Your task to perform on an android device: install app "Spotify: Music and Podcasts" Image 0: 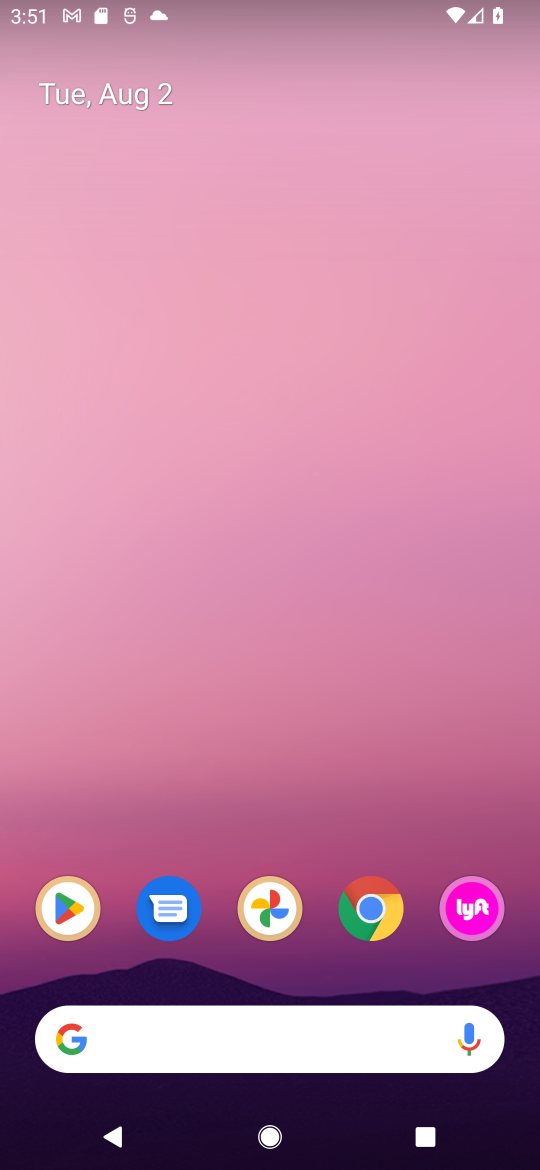
Step 0: press home button
Your task to perform on an android device: install app "Spotify: Music and Podcasts" Image 1: 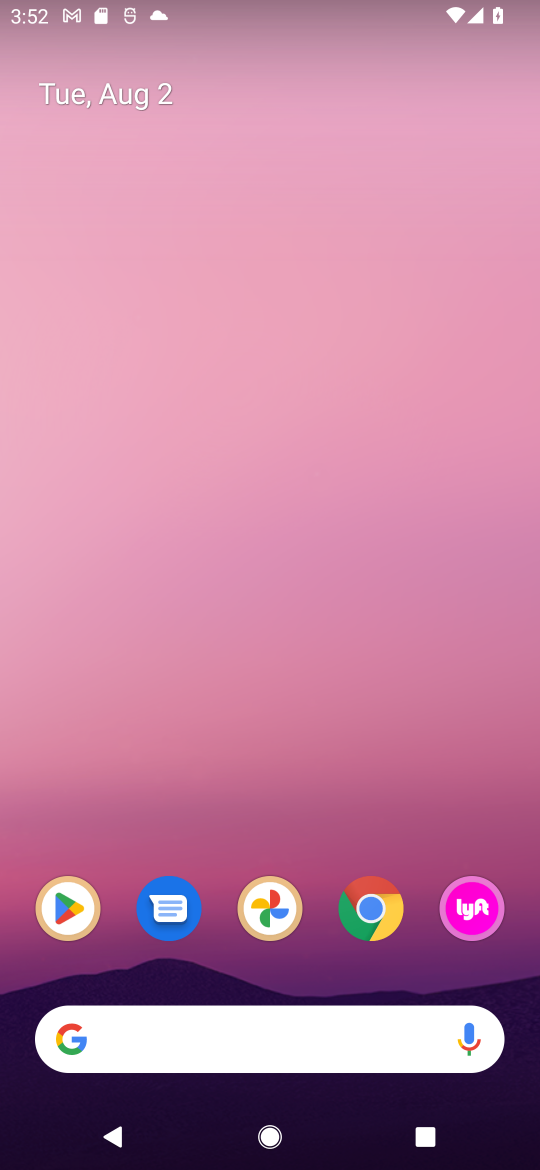
Step 1: click (60, 899)
Your task to perform on an android device: install app "Spotify: Music and Podcasts" Image 2: 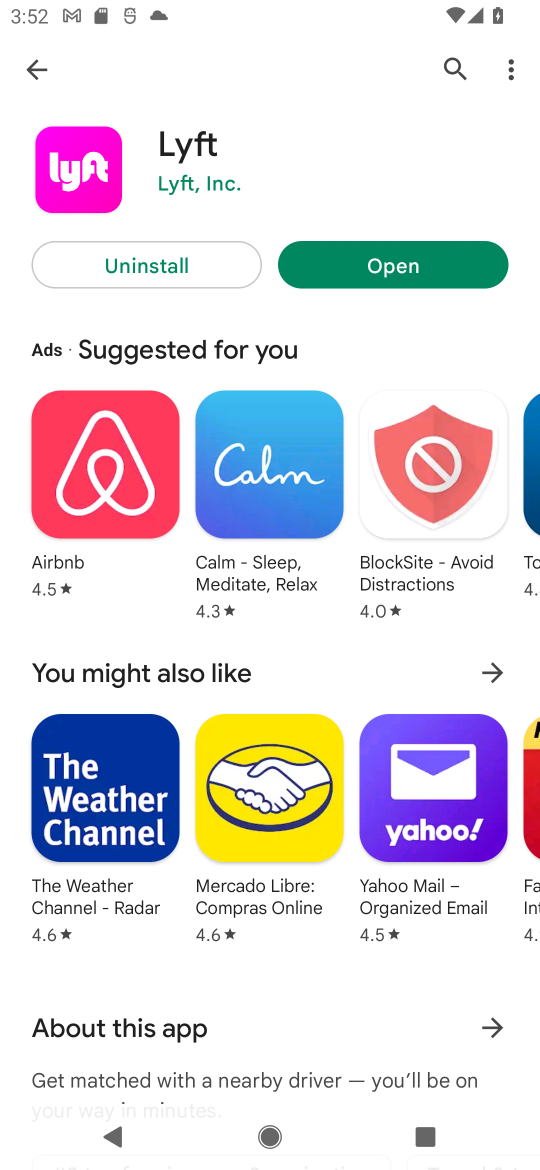
Step 2: click (446, 65)
Your task to perform on an android device: install app "Spotify: Music and Podcasts" Image 3: 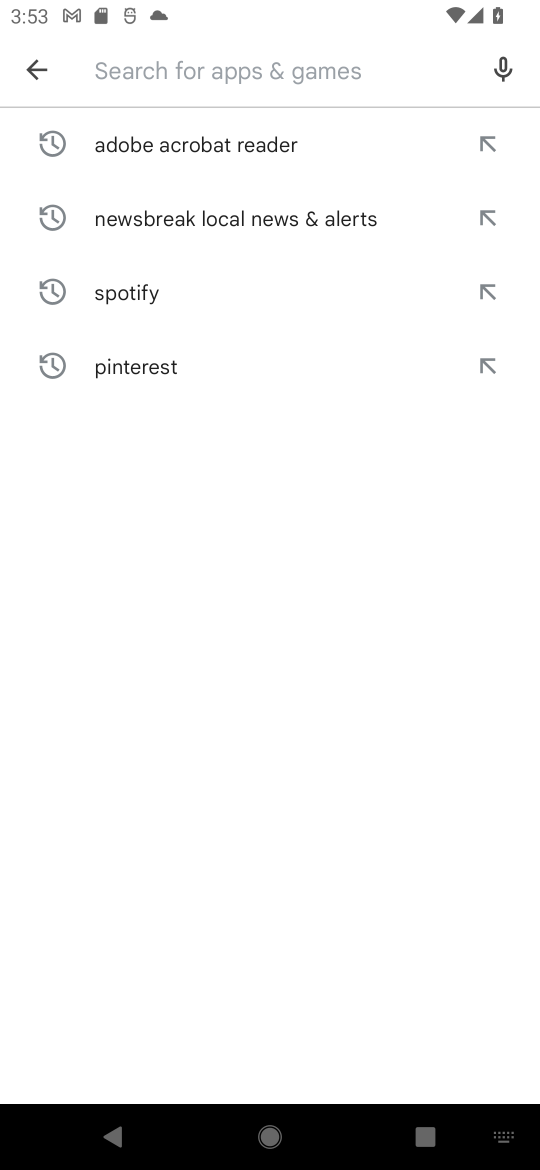
Step 3: type "Spotify: Music and Podcasts"
Your task to perform on an android device: install app "Spotify: Music and Podcasts" Image 4: 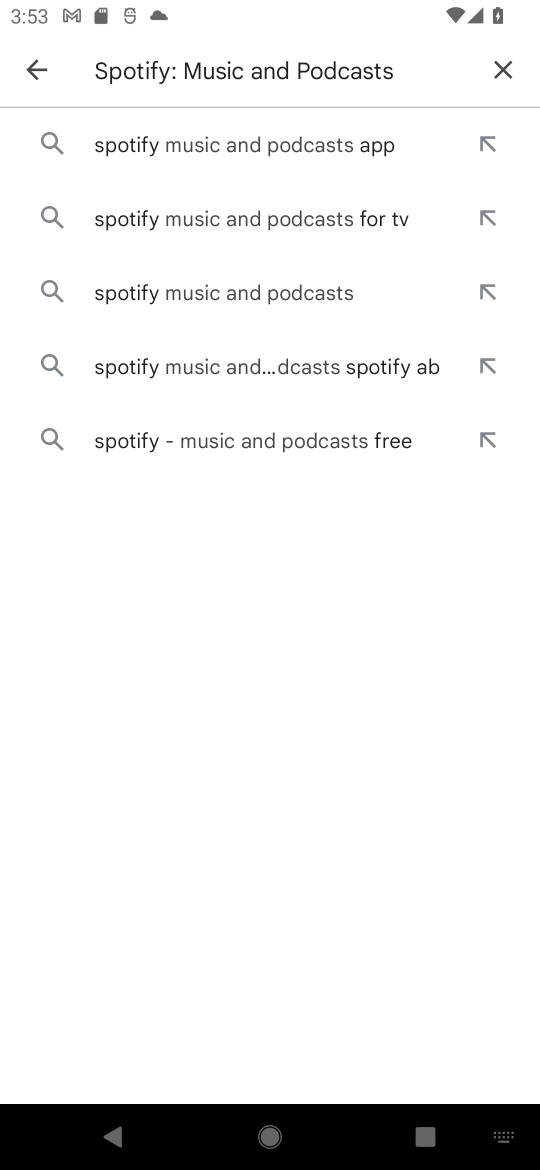
Step 4: click (245, 149)
Your task to perform on an android device: install app "Spotify: Music and Podcasts" Image 5: 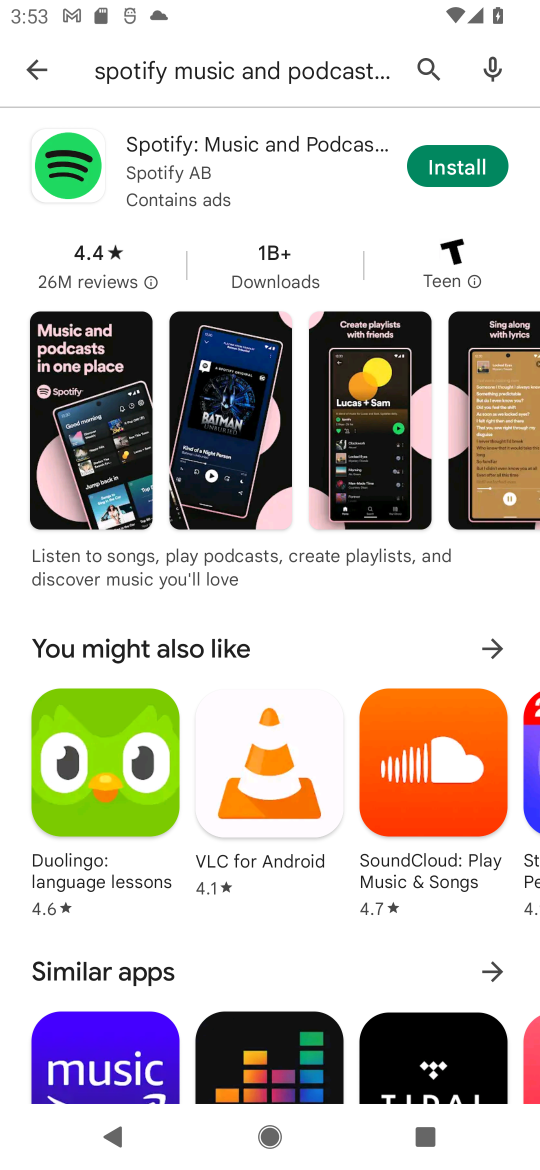
Step 5: click (469, 157)
Your task to perform on an android device: install app "Spotify: Music and Podcasts" Image 6: 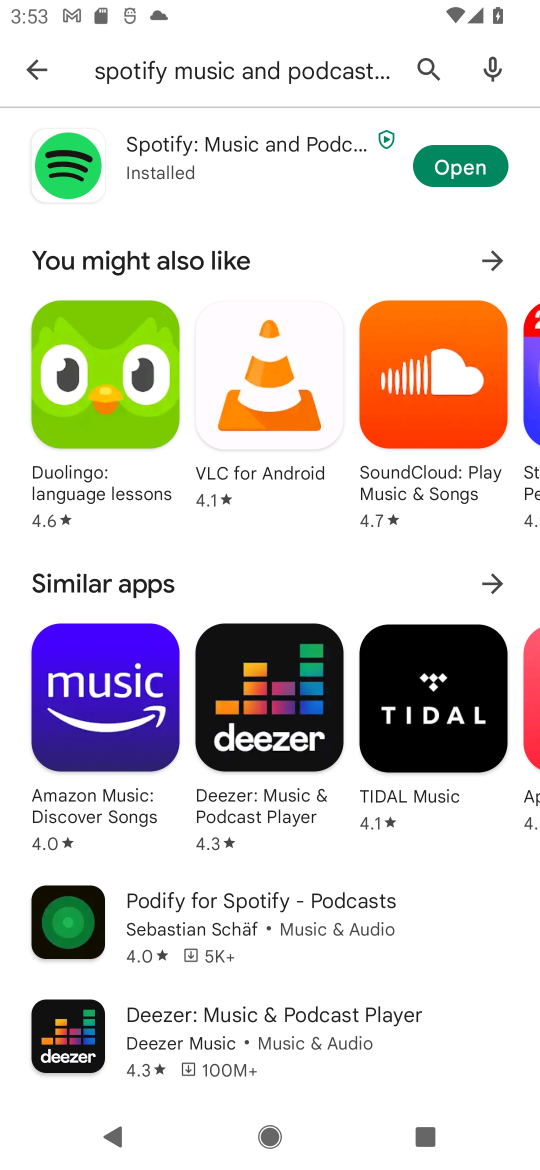
Step 6: click (454, 169)
Your task to perform on an android device: install app "Spotify: Music and Podcasts" Image 7: 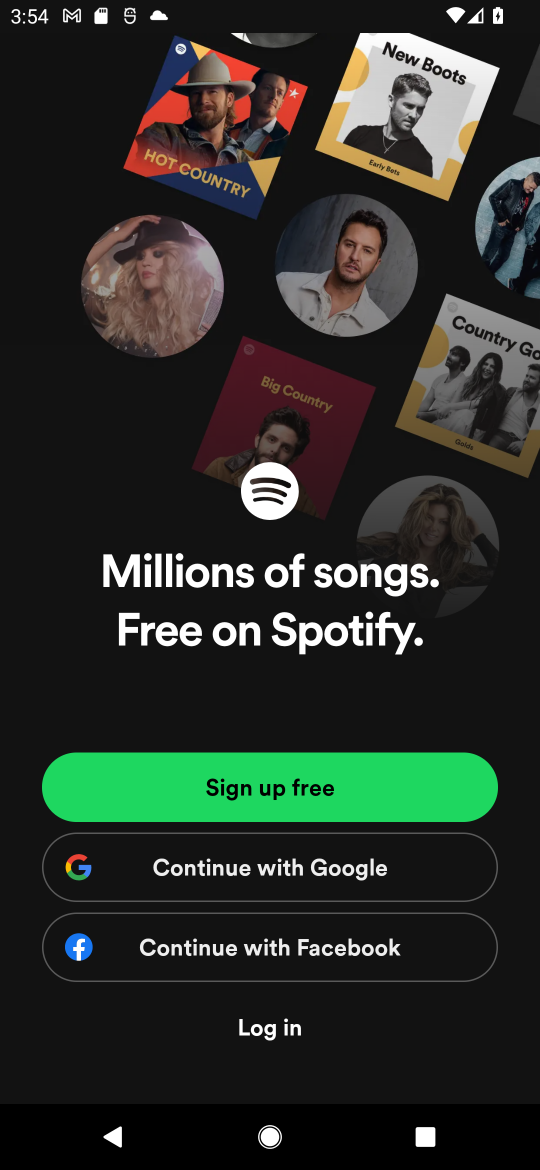
Step 7: click (275, 856)
Your task to perform on an android device: install app "Spotify: Music and Podcasts" Image 8: 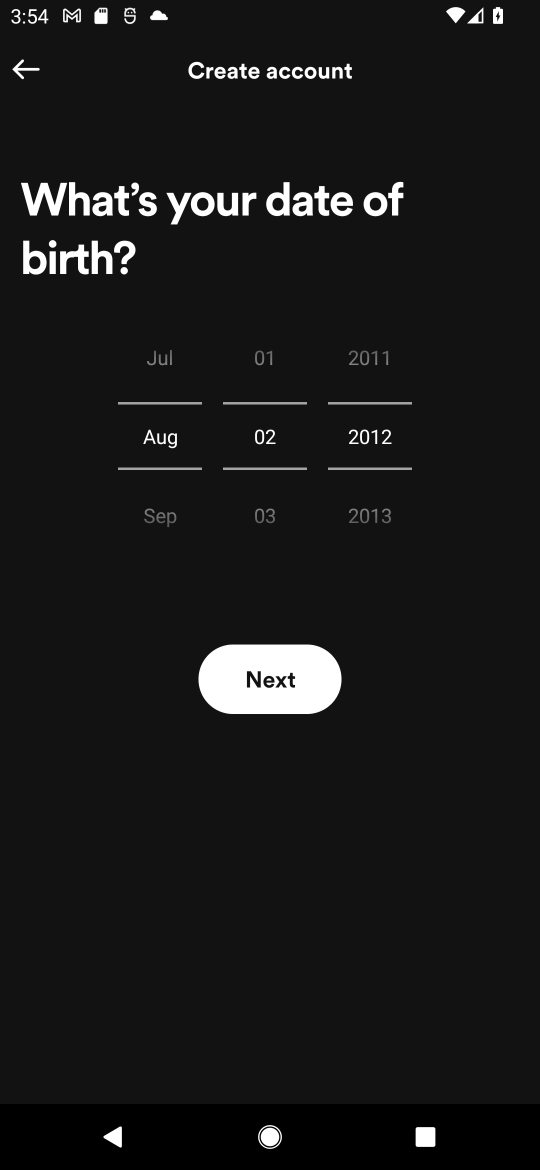
Step 8: drag from (373, 497) to (434, 708)
Your task to perform on an android device: install app "Spotify: Music and Podcasts" Image 9: 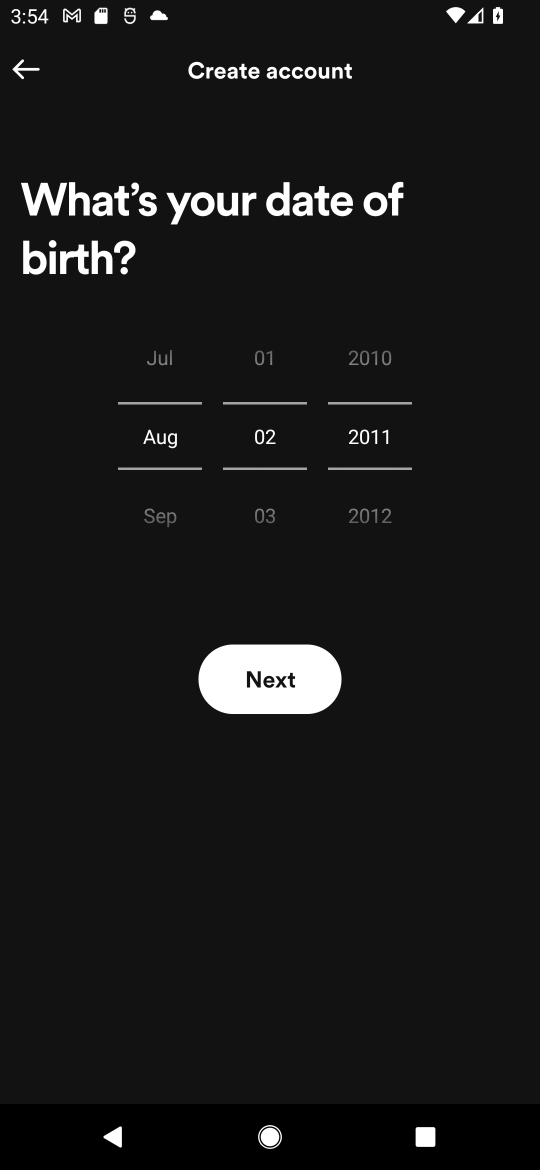
Step 9: drag from (368, 382) to (405, 571)
Your task to perform on an android device: install app "Spotify: Music and Podcasts" Image 10: 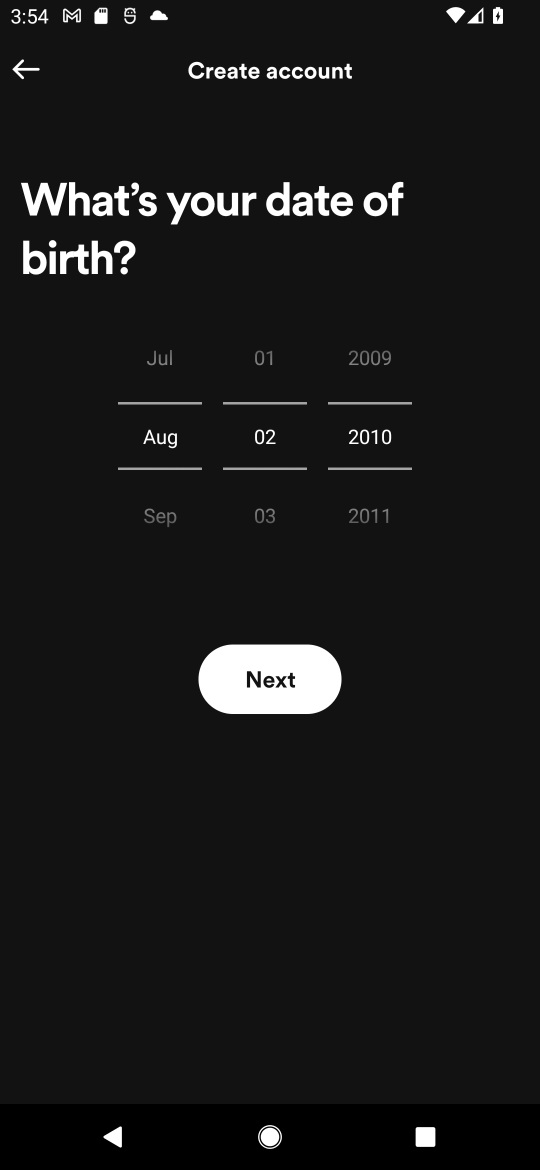
Step 10: drag from (368, 369) to (393, 774)
Your task to perform on an android device: install app "Spotify: Music and Podcasts" Image 11: 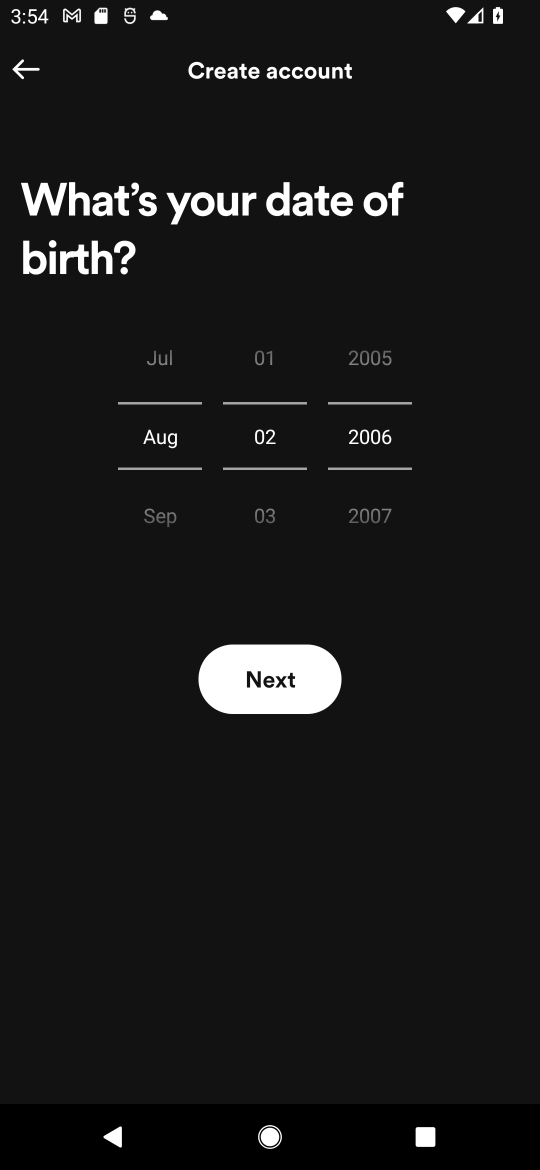
Step 11: drag from (368, 394) to (387, 550)
Your task to perform on an android device: install app "Spotify: Music and Podcasts" Image 12: 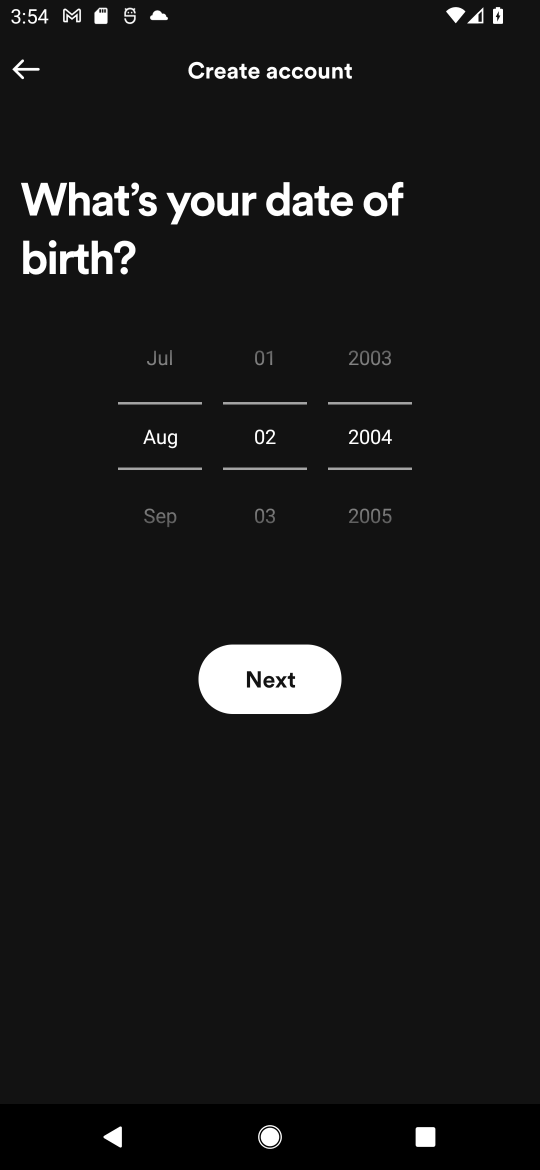
Step 12: drag from (361, 355) to (386, 542)
Your task to perform on an android device: install app "Spotify: Music and Podcasts" Image 13: 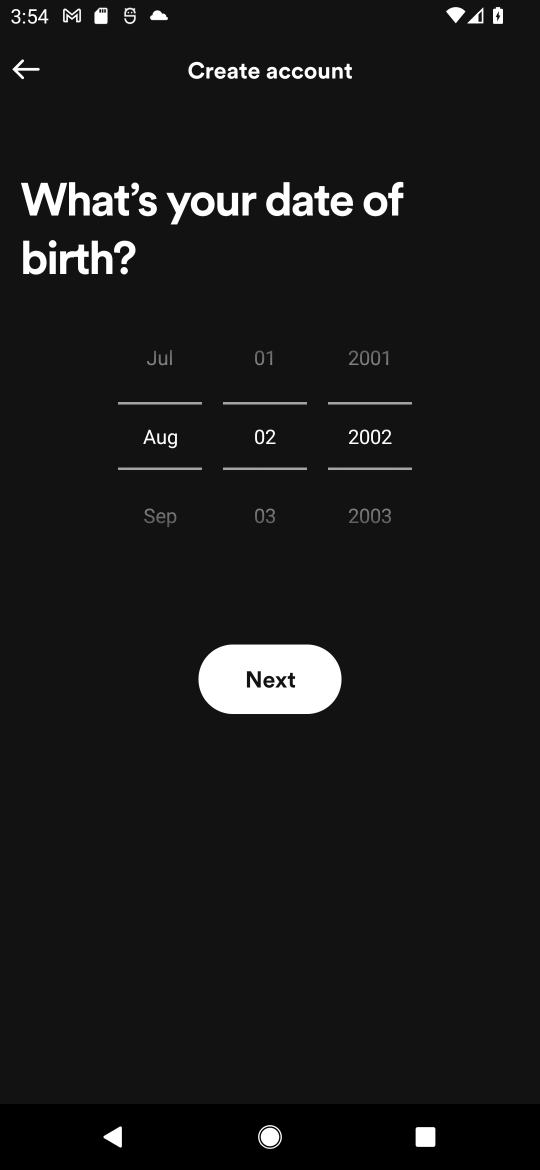
Step 13: drag from (371, 369) to (439, 749)
Your task to perform on an android device: install app "Spotify: Music and Podcasts" Image 14: 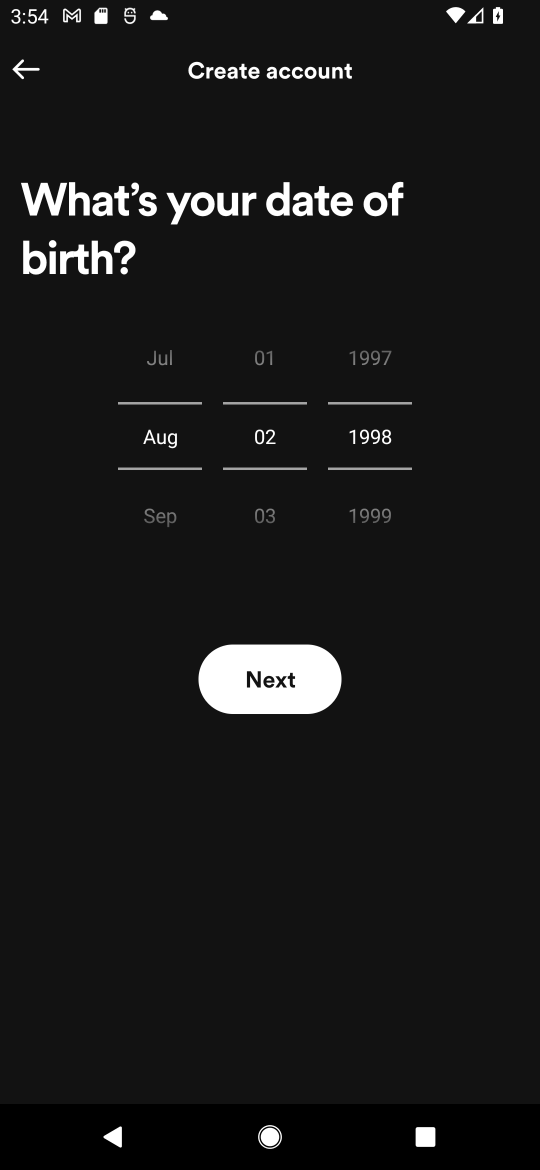
Step 14: drag from (363, 720) to (373, 774)
Your task to perform on an android device: install app "Spotify: Music and Podcasts" Image 15: 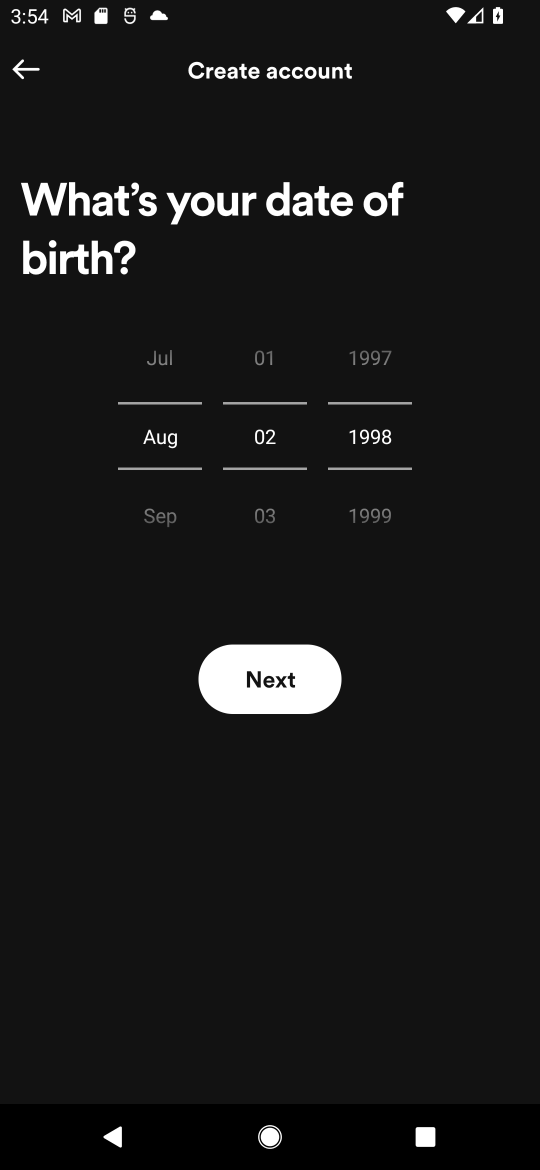
Step 15: drag from (380, 430) to (413, 662)
Your task to perform on an android device: install app "Spotify: Music and Podcasts" Image 16: 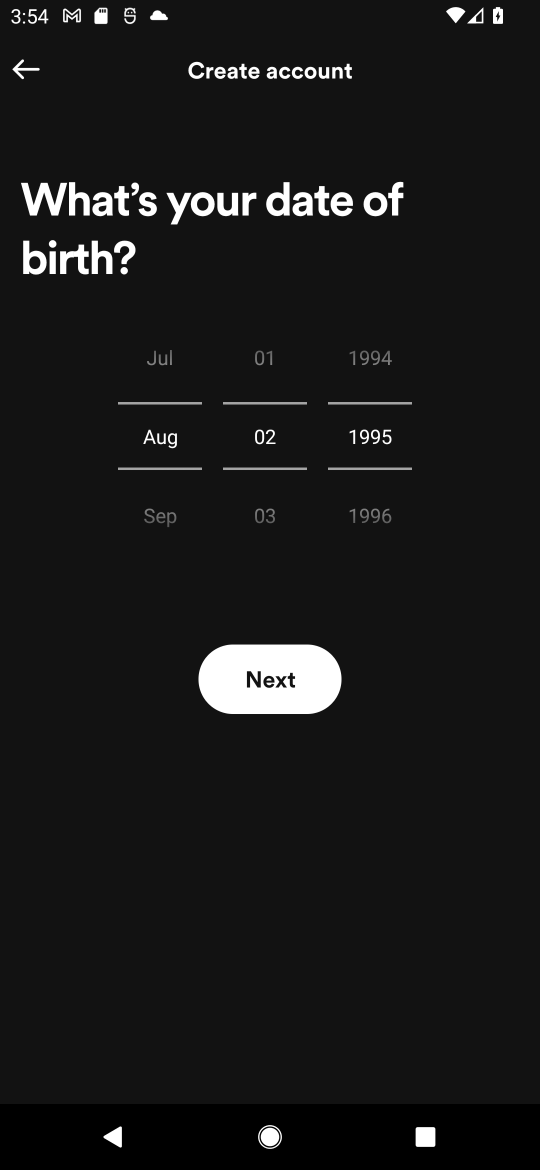
Step 16: click (277, 688)
Your task to perform on an android device: install app "Spotify: Music and Podcasts" Image 17: 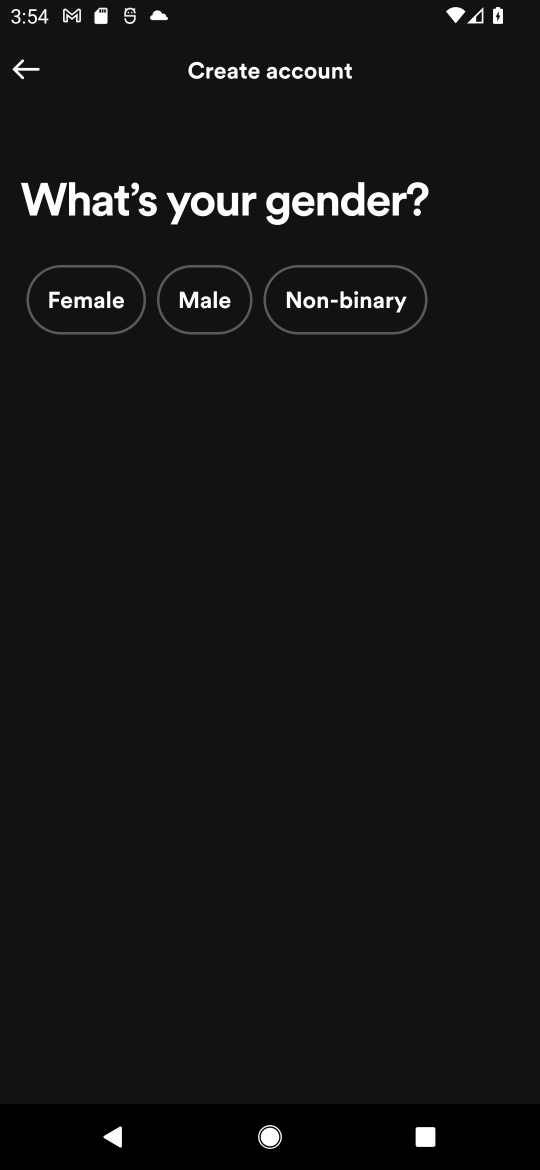
Step 17: click (209, 320)
Your task to perform on an android device: install app "Spotify: Music and Podcasts" Image 18: 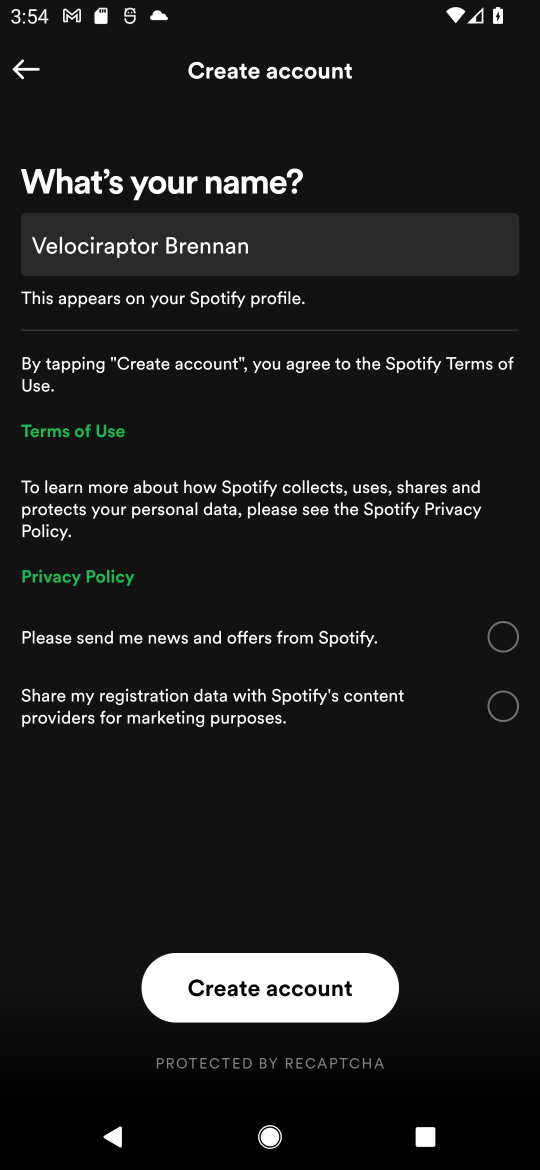
Step 18: click (494, 630)
Your task to perform on an android device: install app "Spotify: Music and Podcasts" Image 19: 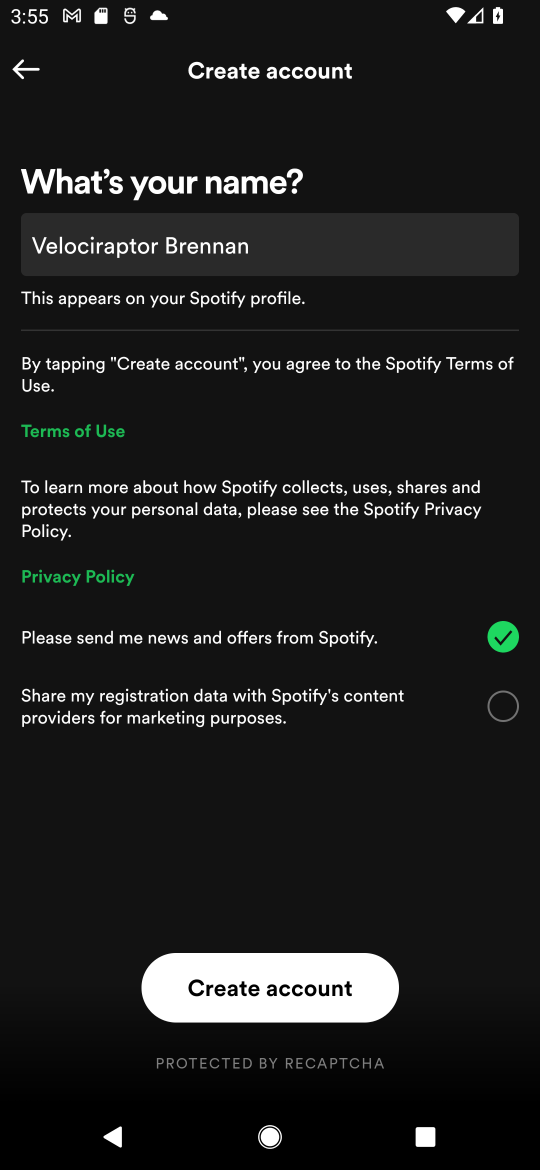
Step 19: click (506, 692)
Your task to perform on an android device: install app "Spotify: Music and Podcasts" Image 20: 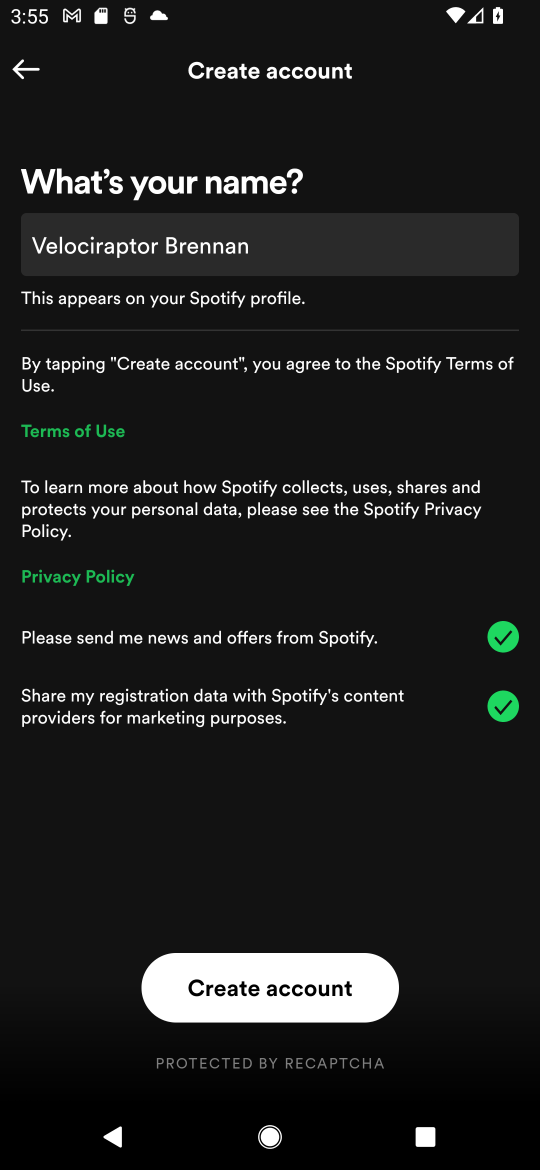
Step 20: click (253, 982)
Your task to perform on an android device: install app "Spotify: Music and Podcasts" Image 21: 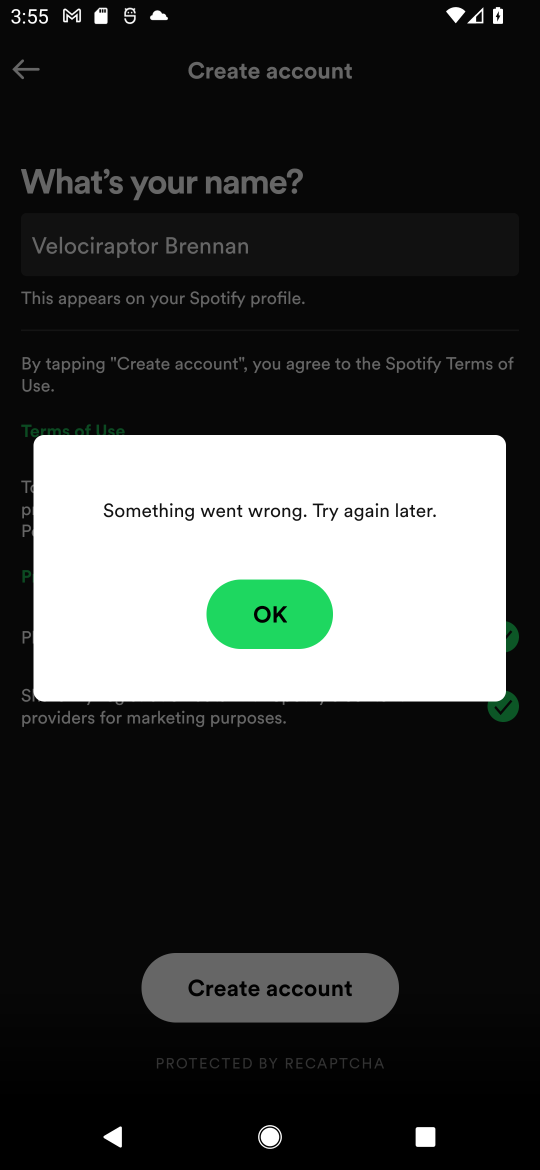
Step 21: click (271, 615)
Your task to perform on an android device: install app "Spotify: Music and Podcasts" Image 22: 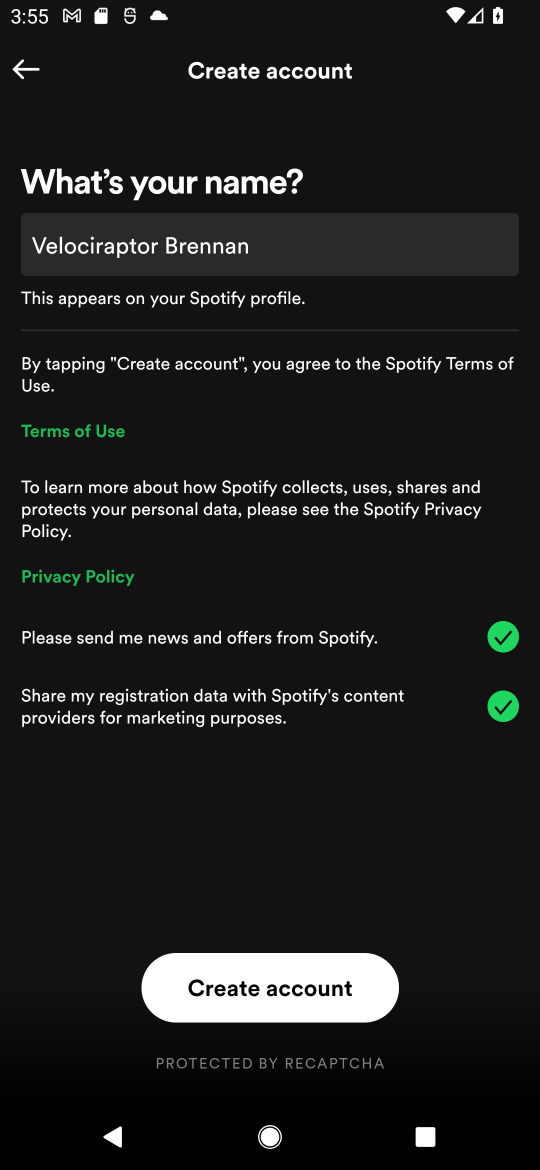
Step 22: click (283, 1002)
Your task to perform on an android device: install app "Spotify: Music and Podcasts" Image 23: 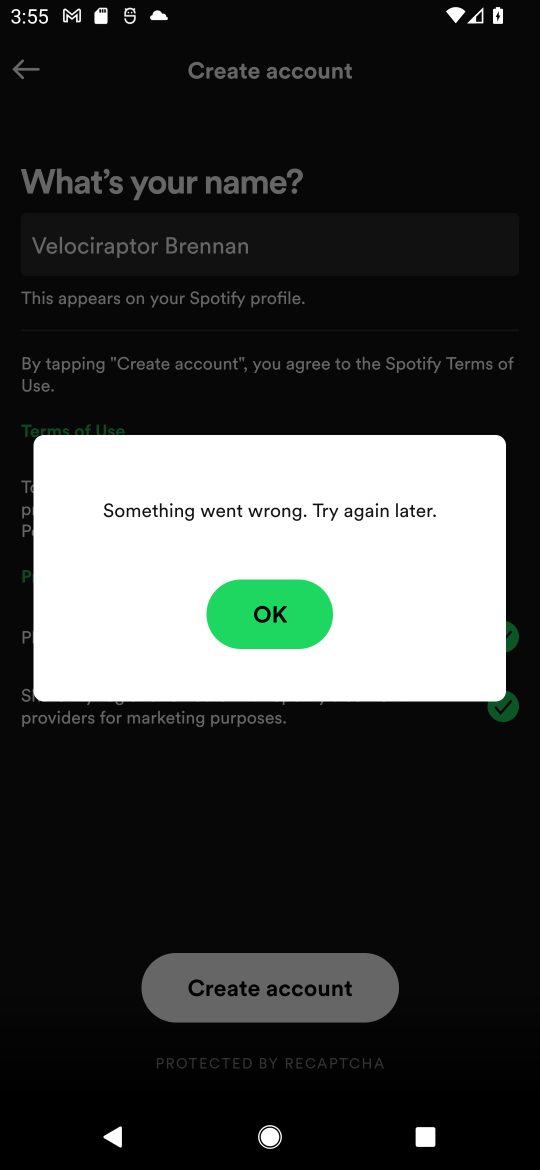
Step 23: click (269, 598)
Your task to perform on an android device: install app "Spotify: Music and Podcasts" Image 24: 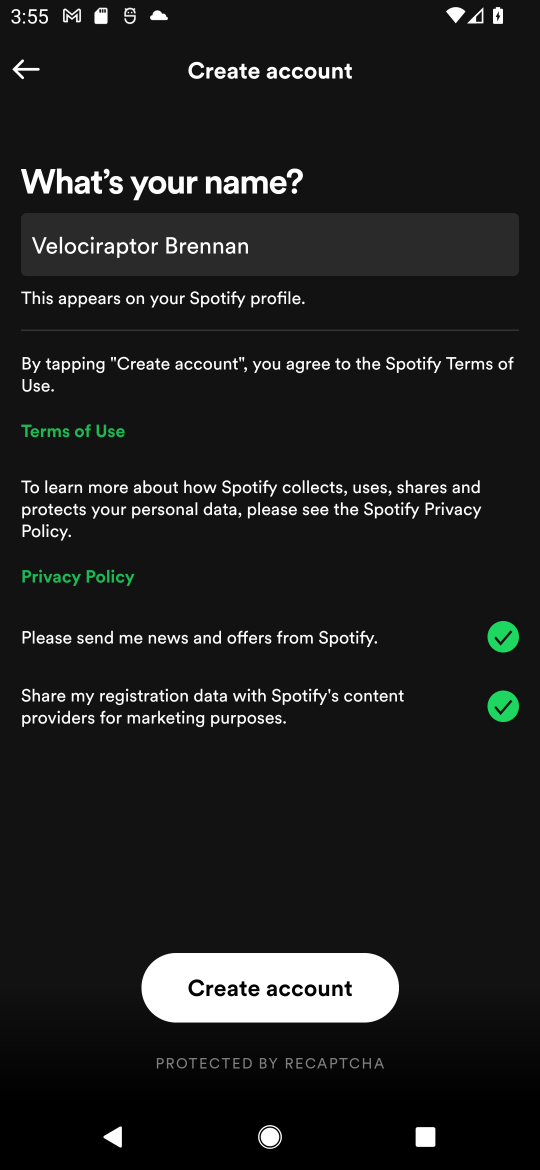
Step 24: task complete